Your task to perform on an android device: Search for sushi restaurants on Maps Image 0: 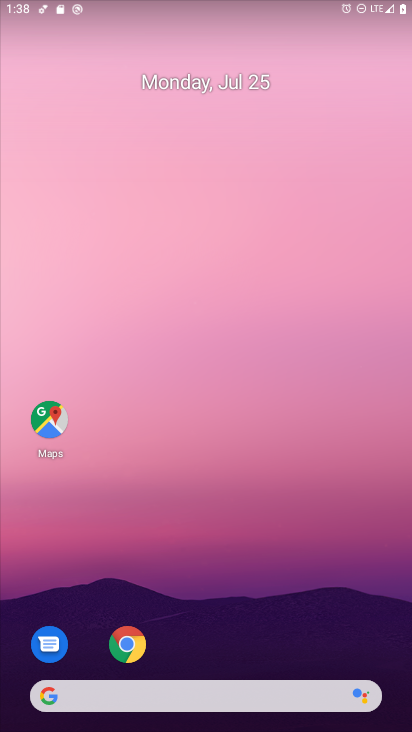
Step 0: click (45, 417)
Your task to perform on an android device: Search for sushi restaurants on Maps Image 1: 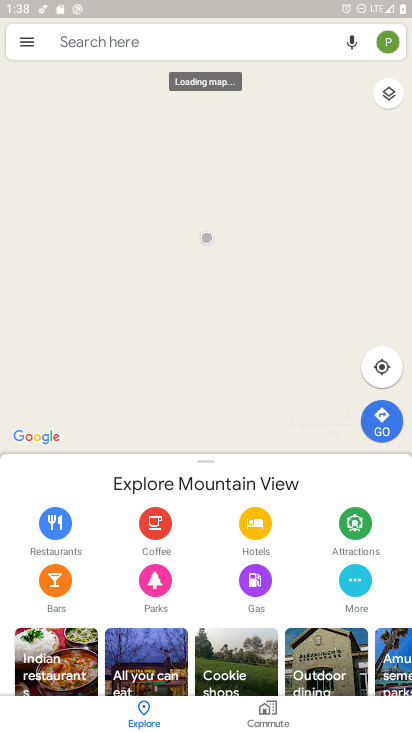
Step 1: click (218, 44)
Your task to perform on an android device: Search for sushi restaurants on Maps Image 2: 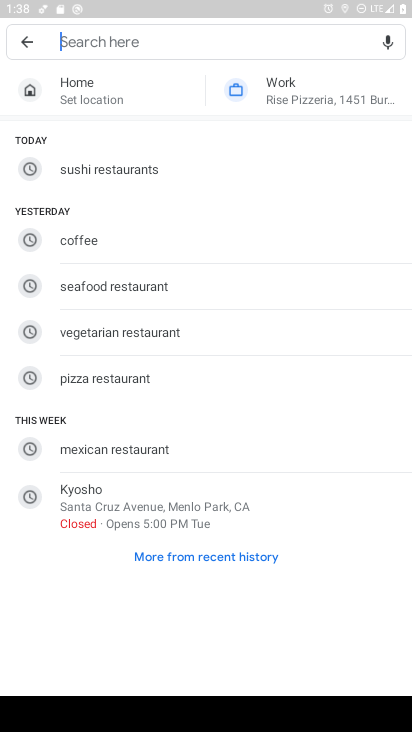
Step 2: type "sushi restaurants"
Your task to perform on an android device: Search for sushi restaurants on Maps Image 3: 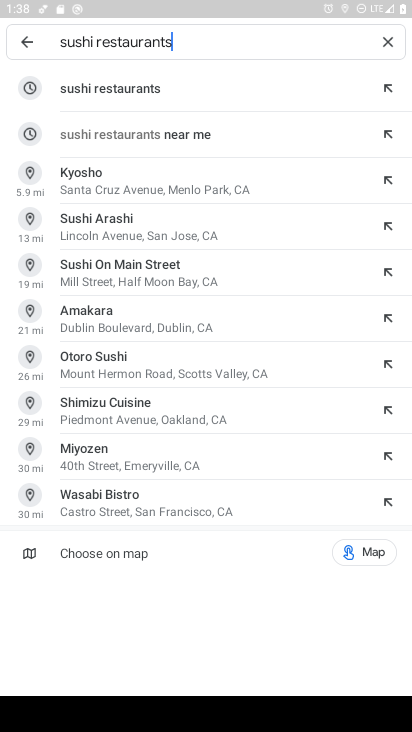
Step 3: click (99, 91)
Your task to perform on an android device: Search for sushi restaurants on Maps Image 4: 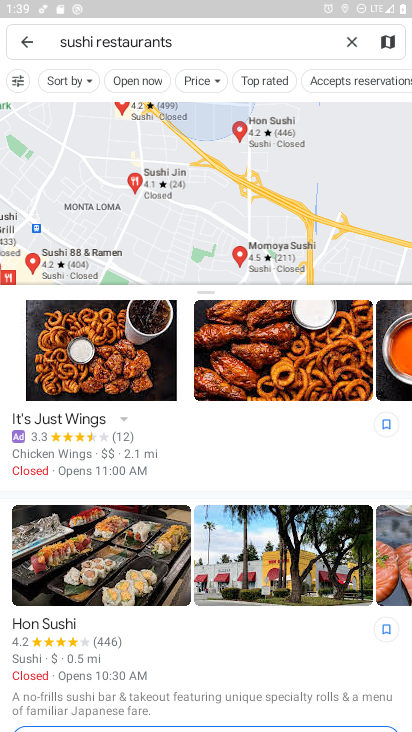
Step 4: task complete